Your task to perform on an android device: Open sound settings Image 0: 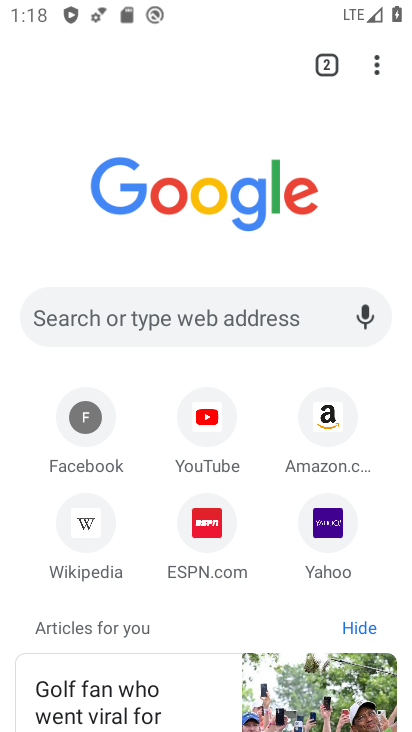
Step 0: press home button
Your task to perform on an android device: Open sound settings Image 1: 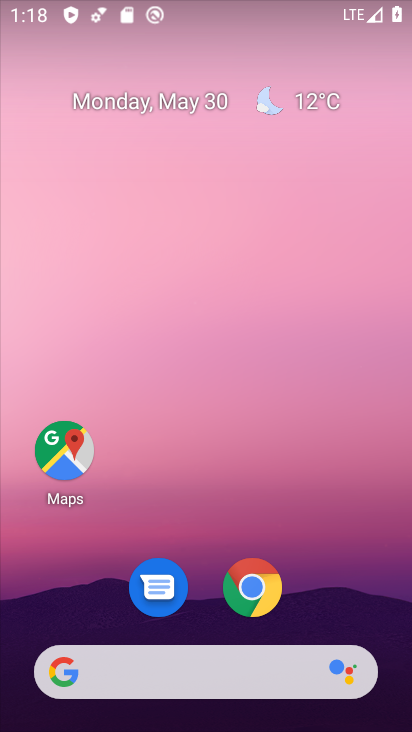
Step 1: drag from (323, 484) to (197, 0)
Your task to perform on an android device: Open sound settings Image 2: 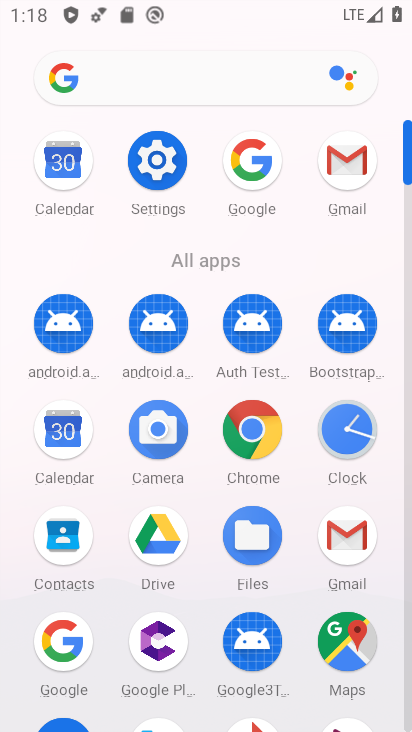
Step 2: click (181, 187)
Your task to perform on an android device: Open sound settings Image 3: 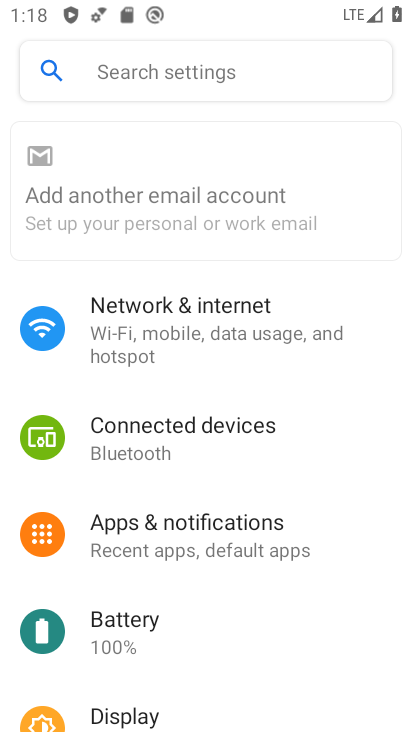
Step 3: drag from (229, 628) to (241, 144)
Your task to perform on an android device: Open sound settings Image 4: 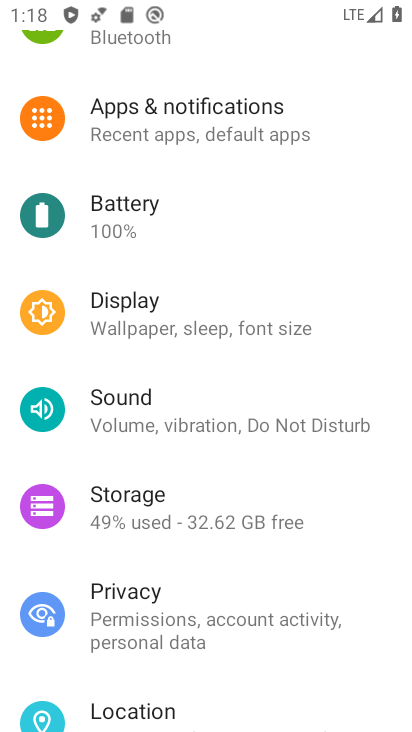
Step 4: click (204, 421)
Your task to perform on an android device: Open sound settings Image 5: 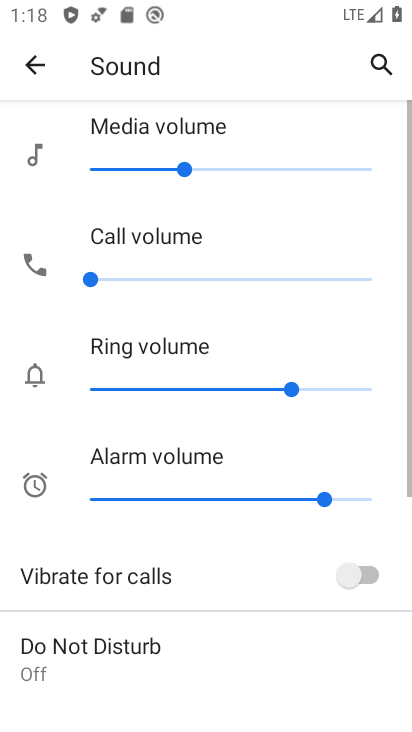
Step 5: task complete